Your task to perform on an android device: find photos in the google photos app Image 0: 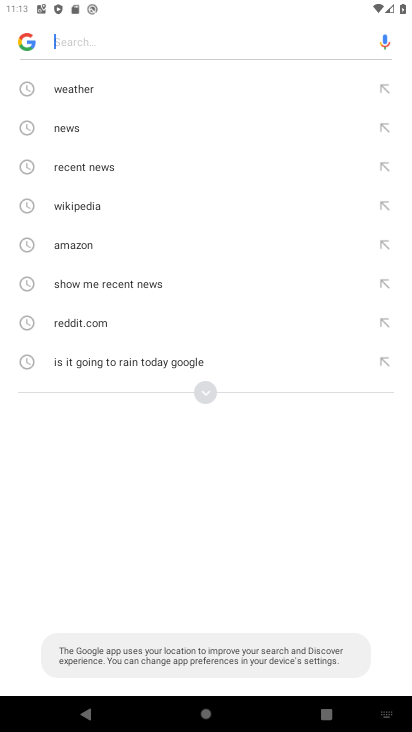
Step 0: press home button
Your task to perform on an android device: find photos in the google photos app Image 1: 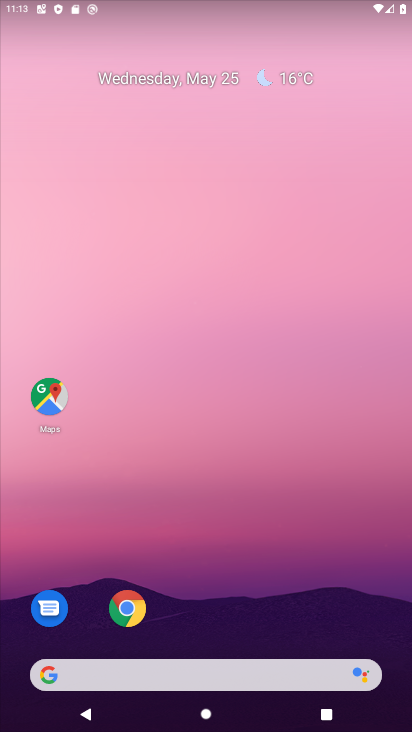
Step 1: drag from (270, 514) to (331, 39)
Your task to perform on an android device: find photos in the google photos app Image 2: 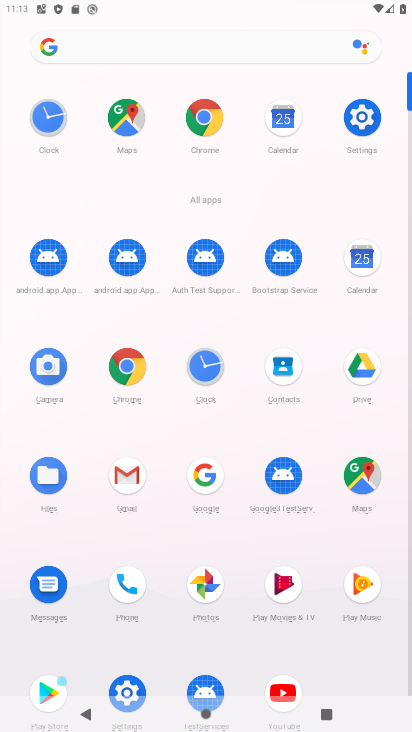
Step 2: click (209, 580)
Your task to perform on an android device: find photos in the google photos app Image 3: 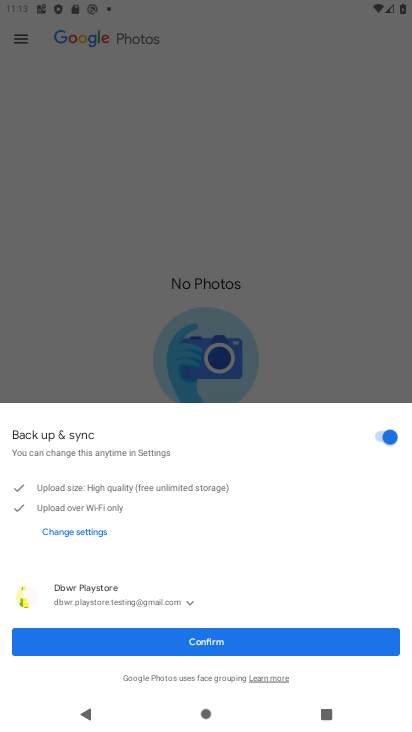
Step 3: click (207, 637)
Your task to perform on an android device: find photos in the google photos app Image 4: 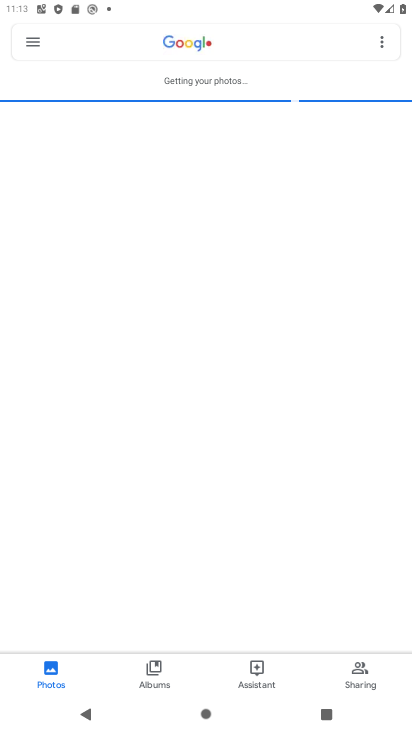
Step 4: task complete